Your task to perform on an android device: change your default location settings in chrome Image 0: 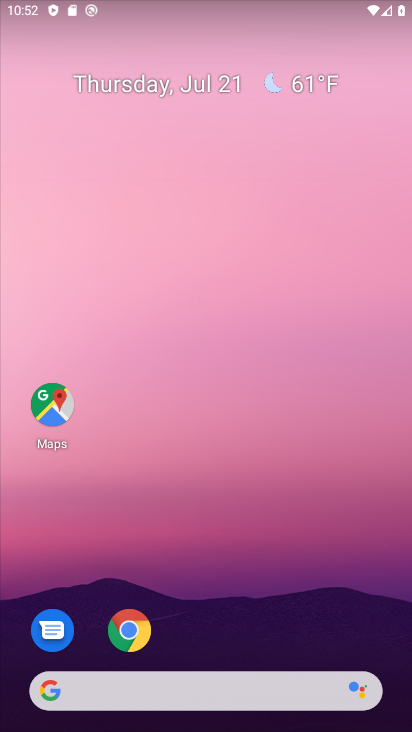
Step 0: drag from (226, 563) to (229, 307)
Your task to perform on an android device: change your default location settings in chrome Image 1: 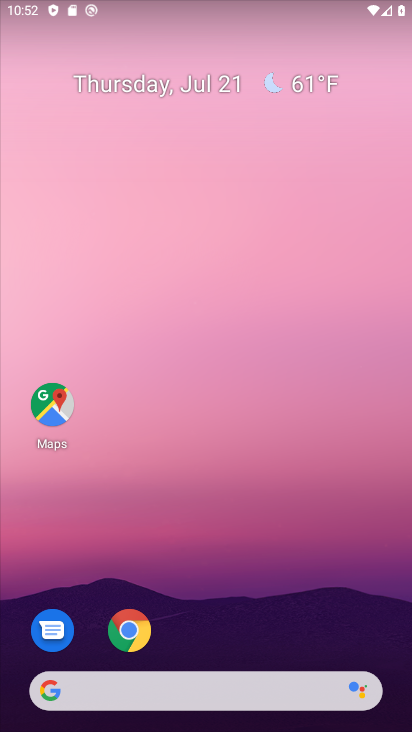
Step 1: click (123, 634)
Your task to perform on an android device: change your default location settings in chrome Image 2: 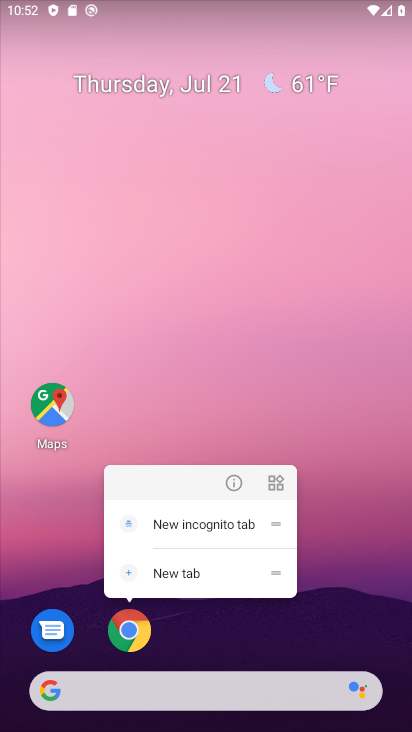
Step 2: click (137, 640)
Your task to perform on an android device: change your default location settings in chrome Image 3: 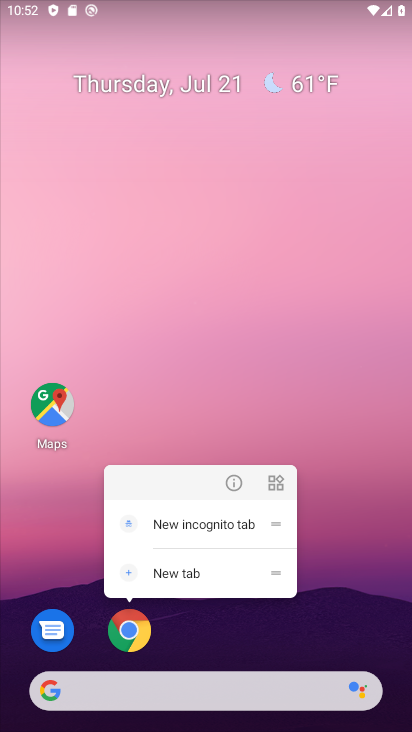
Step 3: click (130, 633)
Your task to perform on an android device: change your default location settings in chrome Image 4: 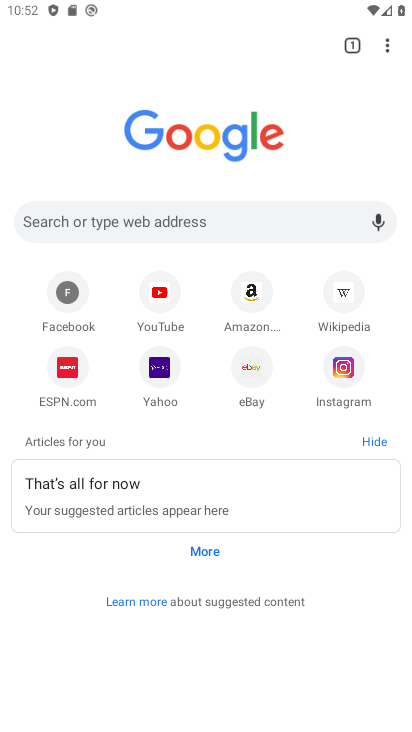
Step 4: click (383, 47)
Your task to perform on an android device: change your default location settings in chrome Image 5: 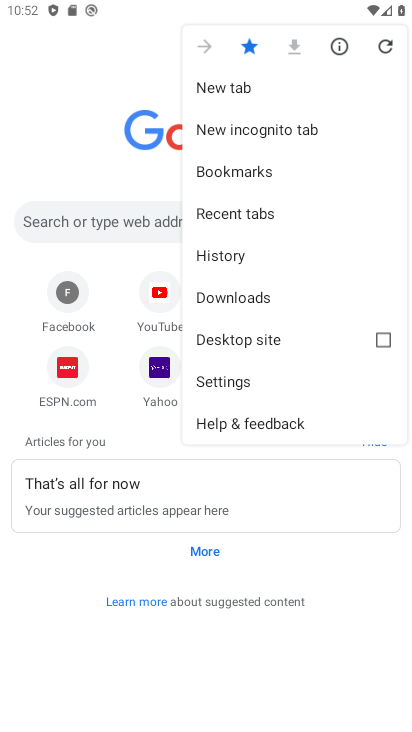
Step 5: click (241, 382)
Your task to perform on an android device: change your default location settings in chrome Image 6: 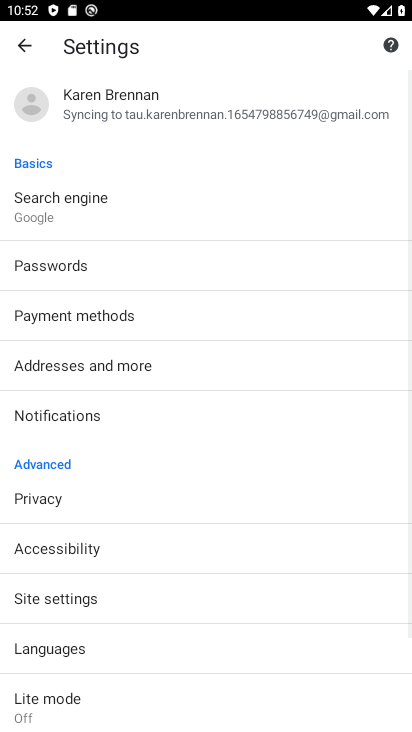
Step 6: click (69, 606)
Your task to perform on an android device: change your default location settings in chrome Image 7: 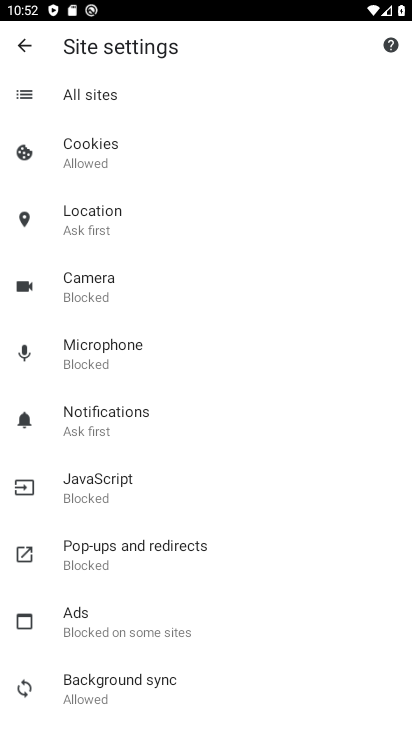
Step 7: click (126, 211)
Your task to perform on an android device: change your default location settings in chrome Image 8: 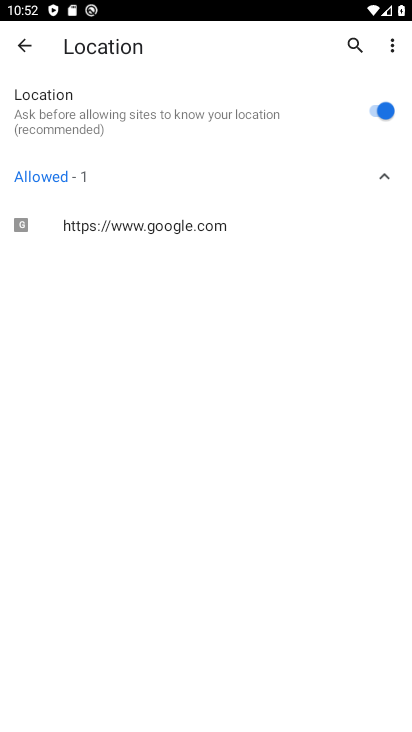
Step 8: click (388, 104)
Your task to perform on an android device: change your default location settings in chrome Image 9: 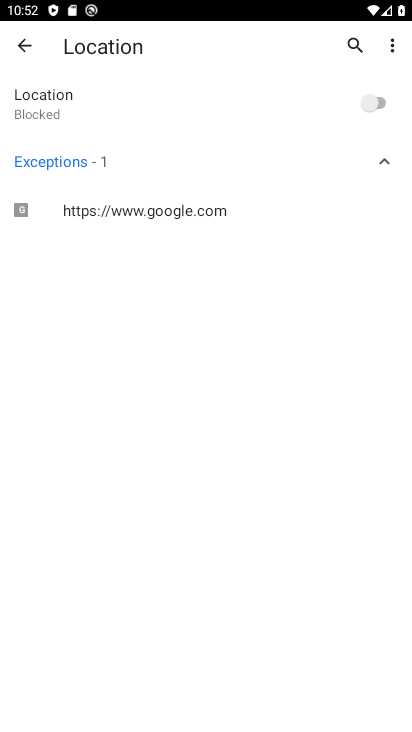
Step 9: task complete